Your task to perform on an android device: Open Amazon Image 0: 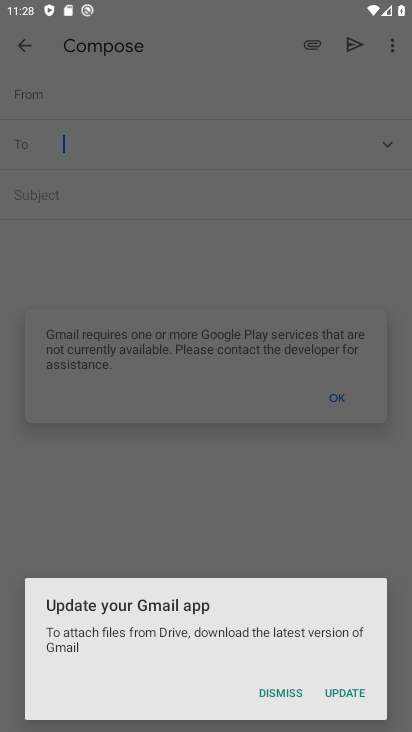
Step 0: press home button
Your task to perform on an android device: Open Amazon Image 1: 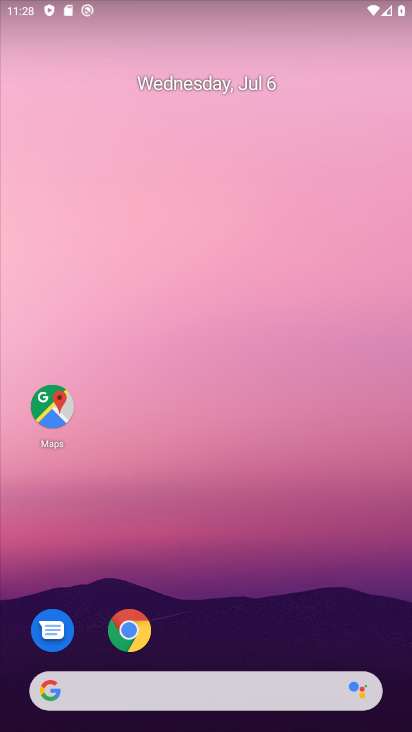
Step 1: click (225, 99)
Your task to perform on an android device: Open Amazon Image 2: 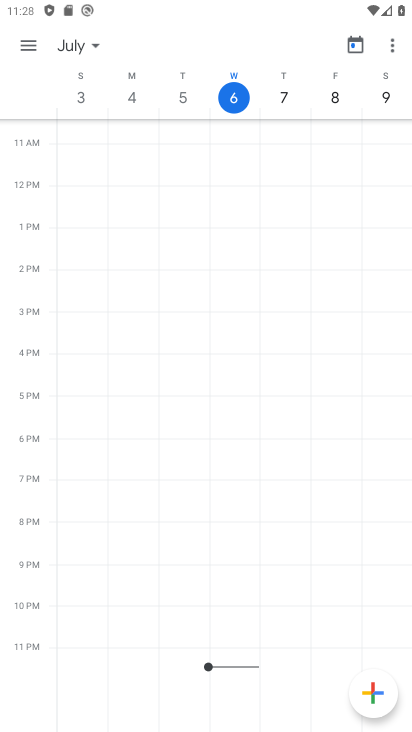
Step 2: press home button
Your task to perform on an android device: Open Amazon Image 3: 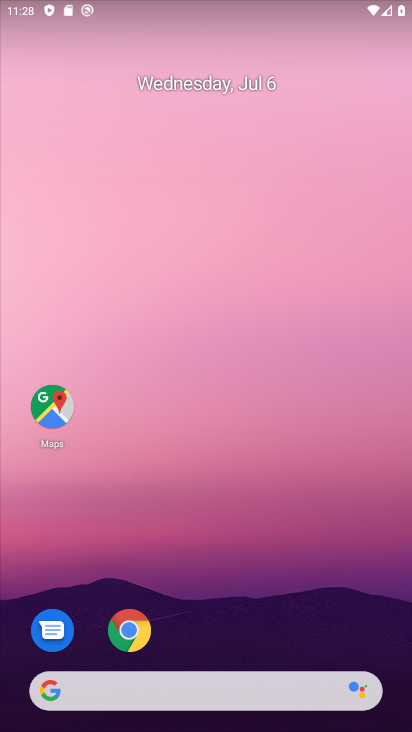
Step 3: click (146, 627)
Your task to perform on an android device: Open Amazon Image 4: 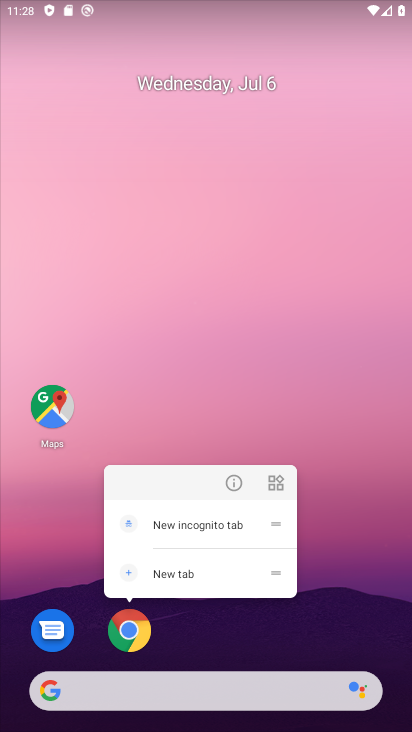
Step 4: click (126, 631)
Your task to perform on an android device: Open Amazon Image 5: 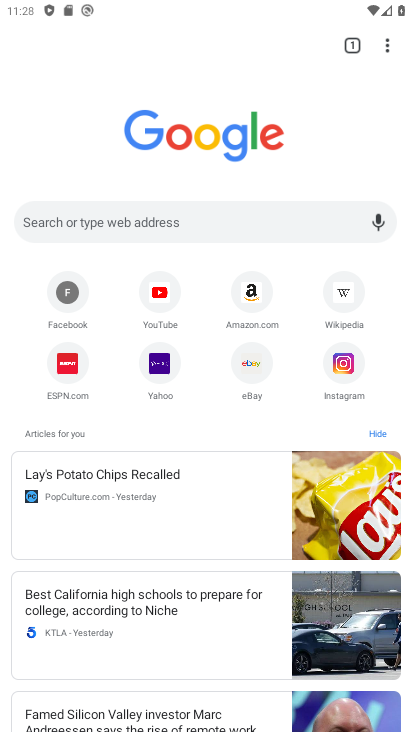
Step 5: click (269, 289)
Your task to perform on an android device: Open Amazon Image 6: 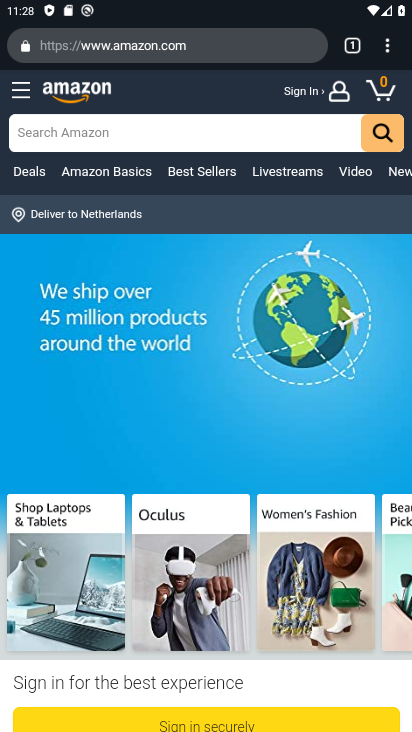
Step 6: task complete